Your task to perform on an android device: Check the news Image 0: 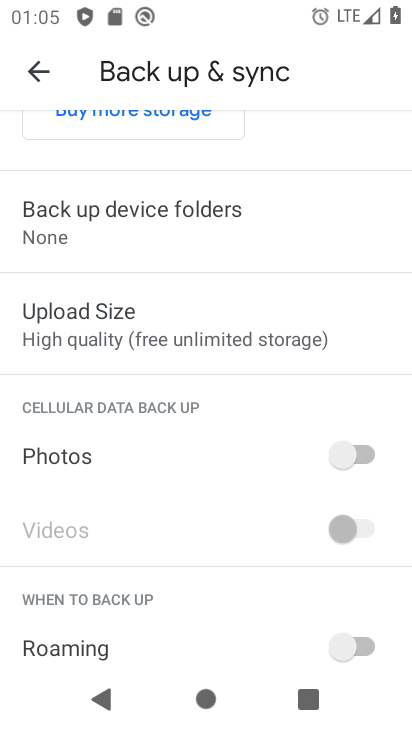
Step 0: press home button
Your task to perform on an android device: Check the news Image 1: 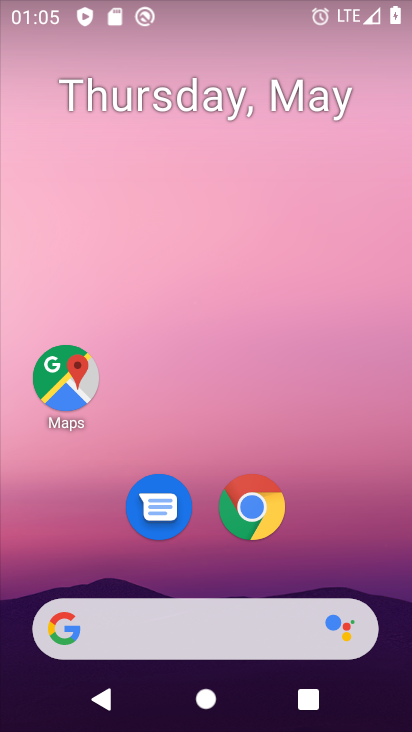
Step 1: drag from (190, 564) to (244, 227)
Your task to perform on an android device: Check the news Image 2: 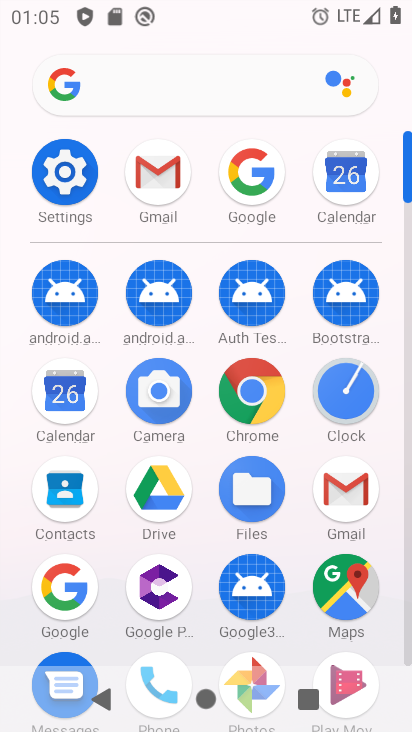
Step 2: click (259, 176)
Your task to perform on an android device: Check the news Image 3: 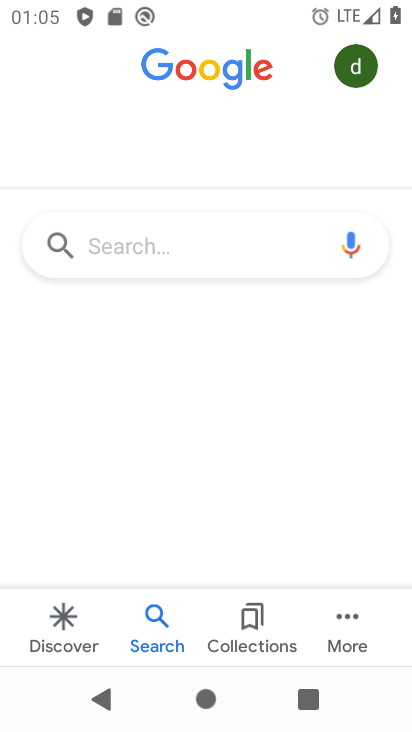
Step 3: click (147, 245)
Your task to perform on an android device: Check the news Image 4: 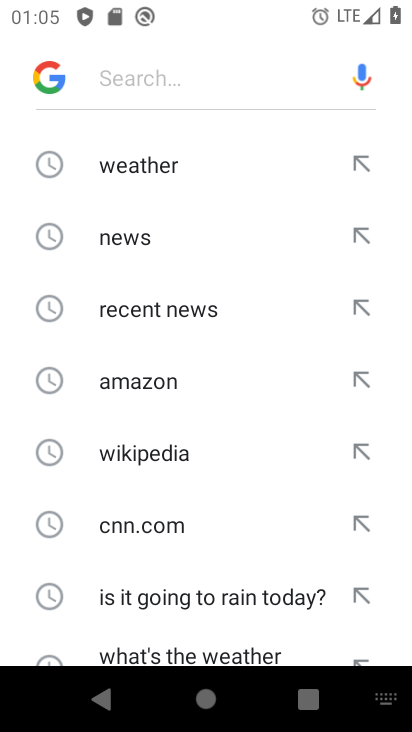
Step 4: click (136, 223)
Your task to perform on an android device: Check the news Image 5: 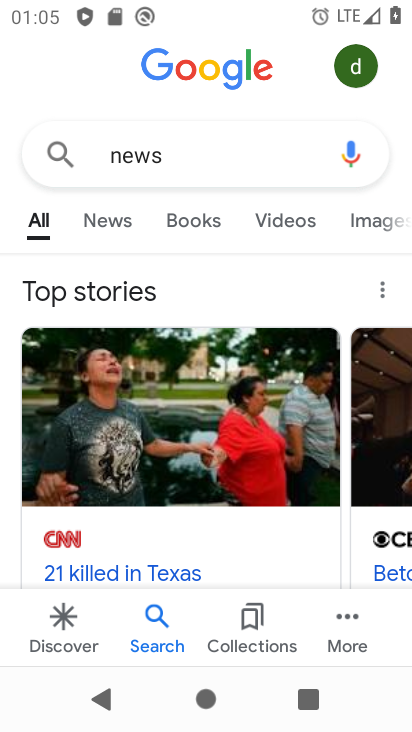
Step 5: click (134, 224)
Your task to perform on an android device: Check the news Image 6: 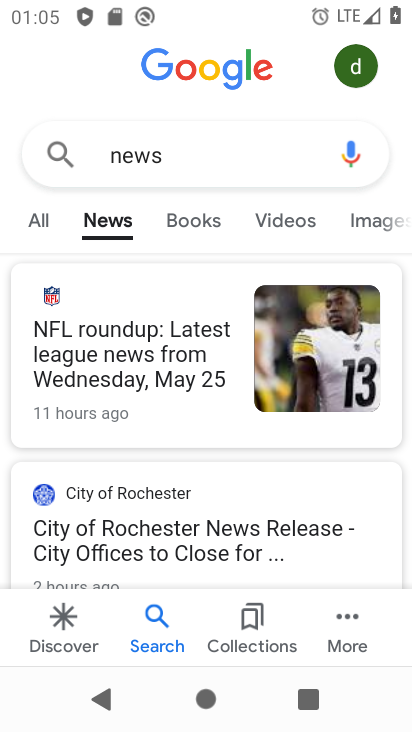
Step 6: task complete